Your task to perform on an android device: Open sound settings Image 0: 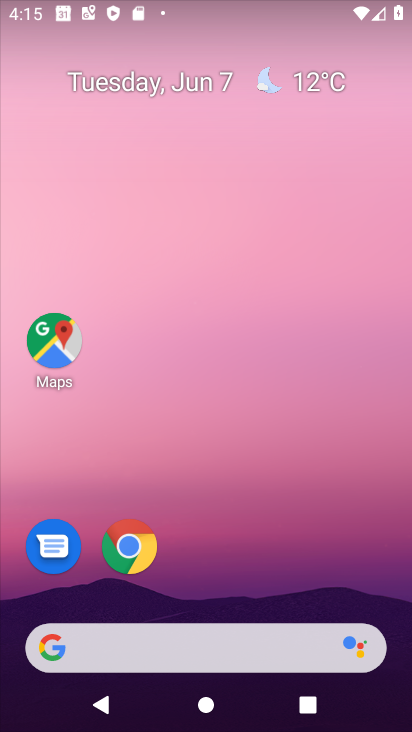
Step 0: drag from (227, 590) to (271, 41)
Your task to perform on an android device: Open sound settings Image 1: 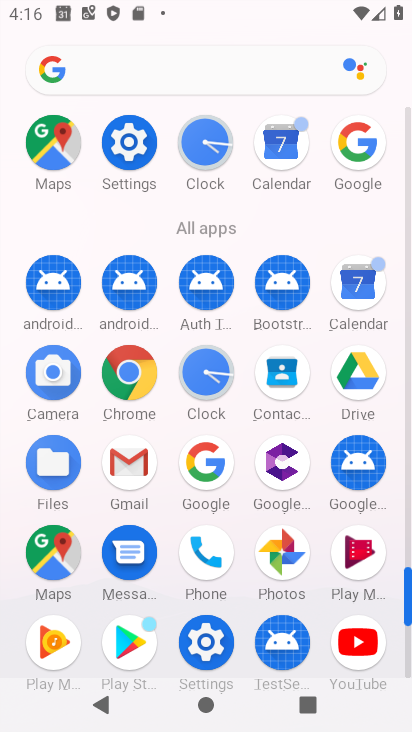
Step 1: click (131, 154)
Your task to perform on an android device: Open sound settings Image 2: 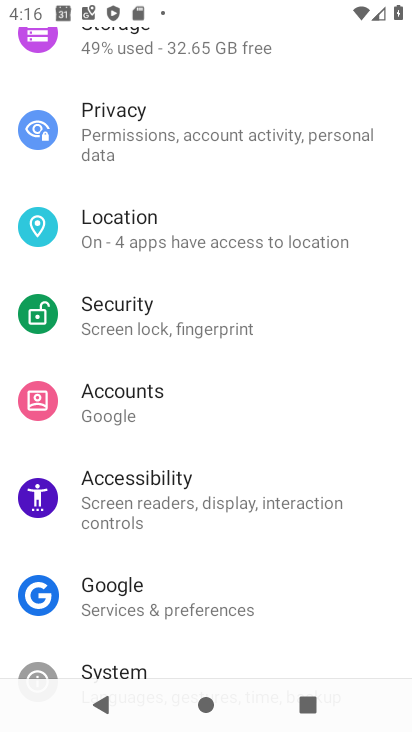
Step 2: drag from (166, 587) to (139, 379)
Your task to perform on an android device: Open sound settings Image 3: 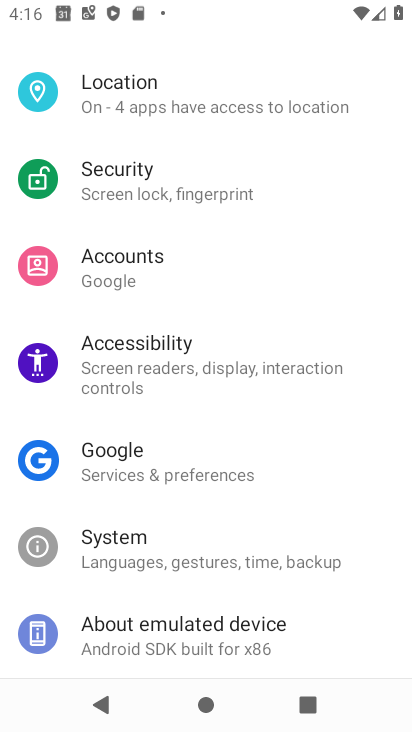
Step 3: drag from (233, 220) to (244, 485)
Your task to perform on an android device: Open sound settings Image 4: 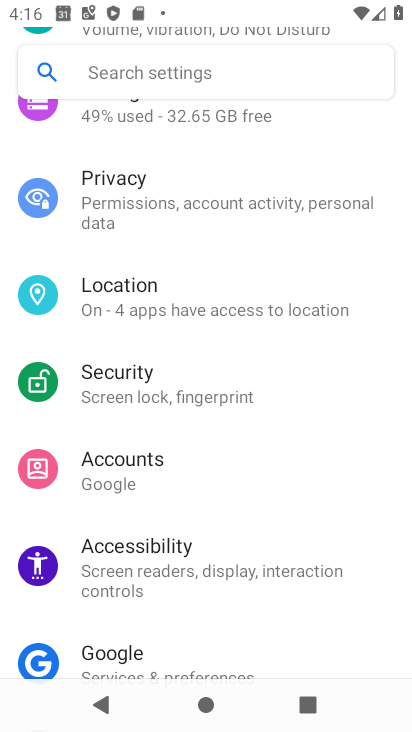
Step 4: drag from (169, 322) to (169, 489)
Your task to perform on an android device: Open sound settings Image 5: 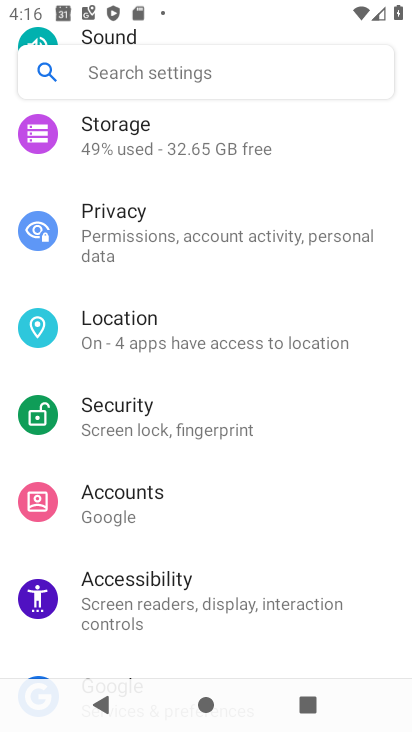
Step 5: drag from (245, 236) to (208, 675)
Your task to perform on an android device: Open sound settings Image 6: 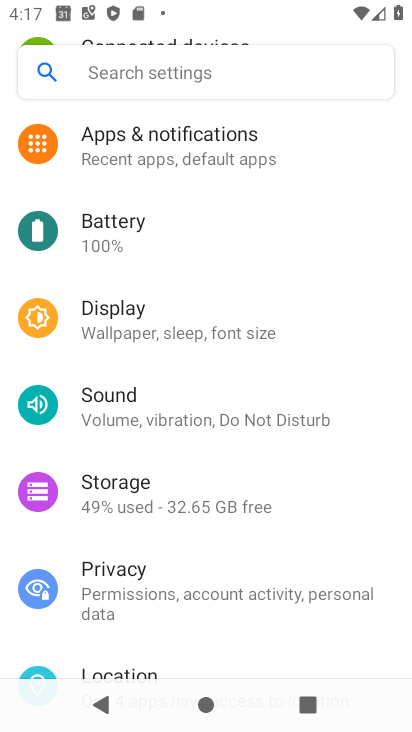
Step 6: click (147, 425)
Your task to perform on an android device: Open sound settings Image 7: 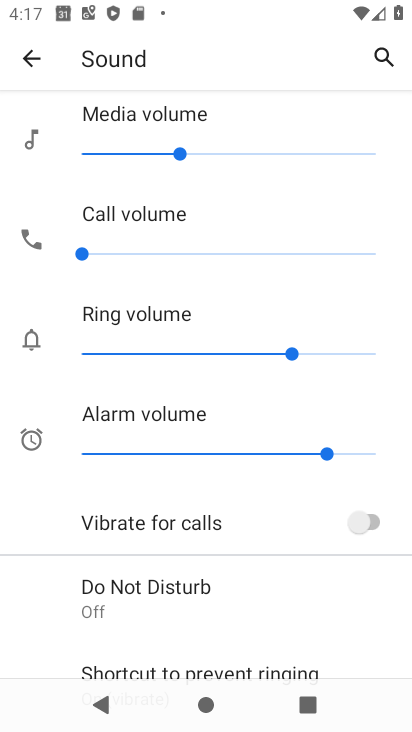
Step 7: task complete